Your task to perform on an android device: Go to location settings Image 0: 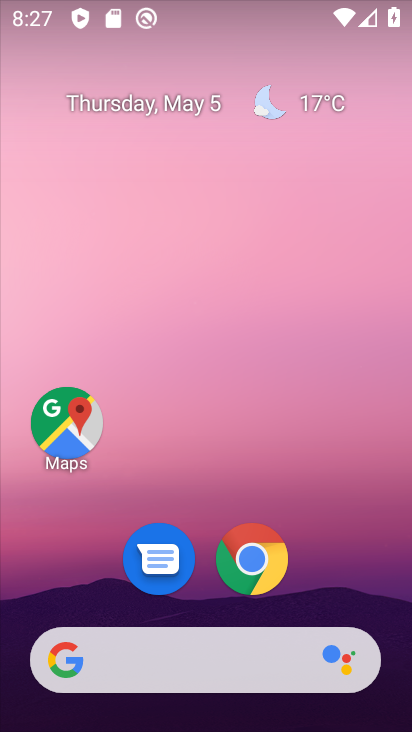
Step 0: click (270, 5)
Your task to perform on an android device: Go to location settings Image 1: 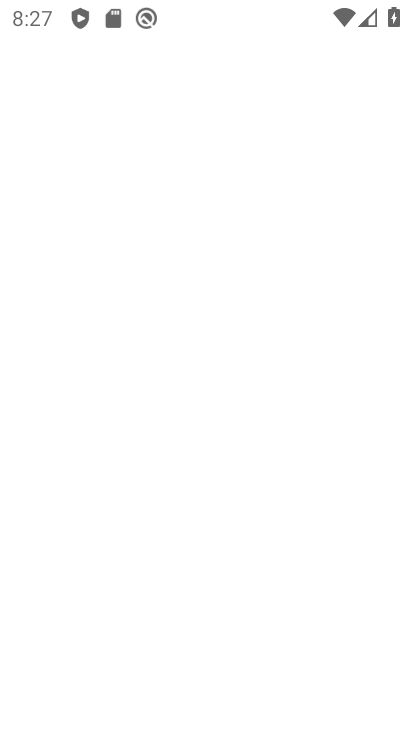
Step 1: press back button
Your task to perform on an android device: Go to location settings Image 2: 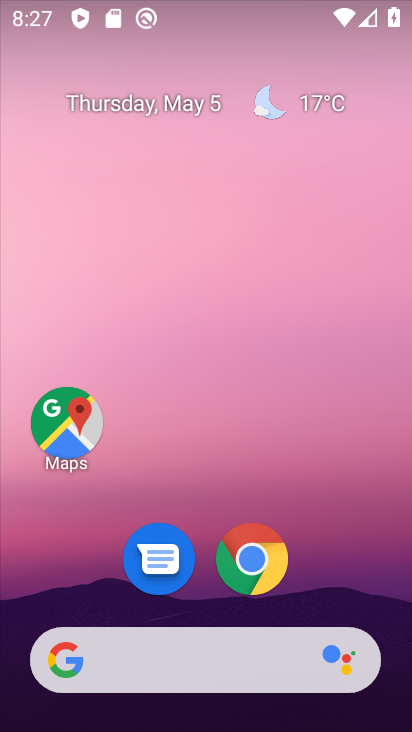
Step 2: drag from (201, 538) to (305, 35)
Your task to perform on an android device: Go to location settings Image 3: 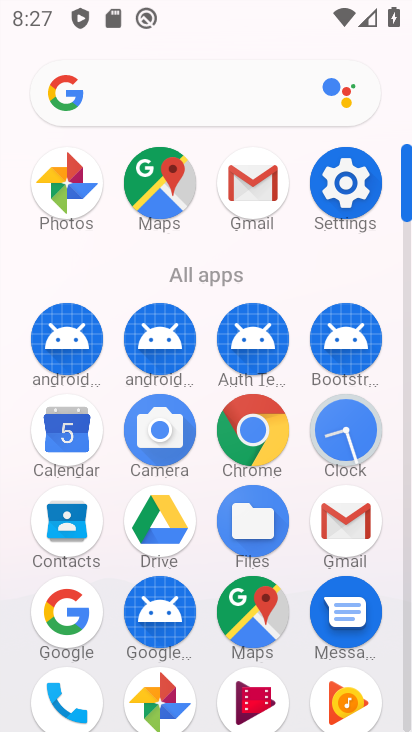
Step 3: click (347, 175)
Your task to perform on an android device: Go to location settings Image 4: 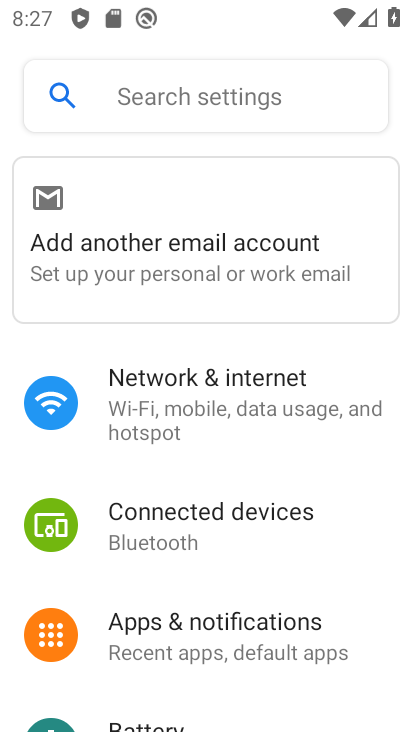
Step 4: drag from (211, 621) to (303, 98)
Your task to perform on an android device: Go to location settings Image 5: 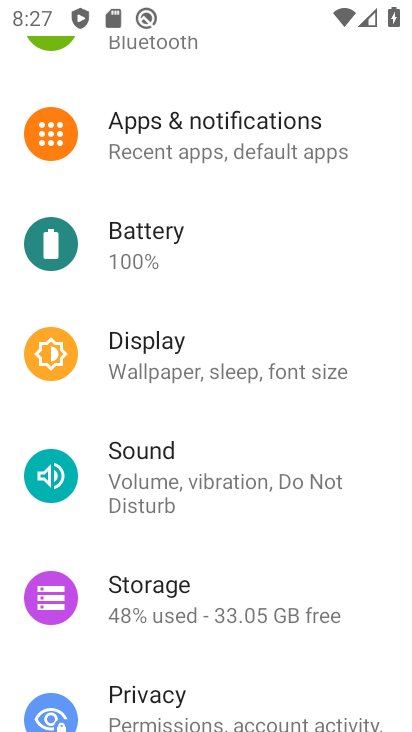
Step 5: drag from (220, 621) to (289, 164)
Your task to perform on an android device: Go to location settings Image 6: 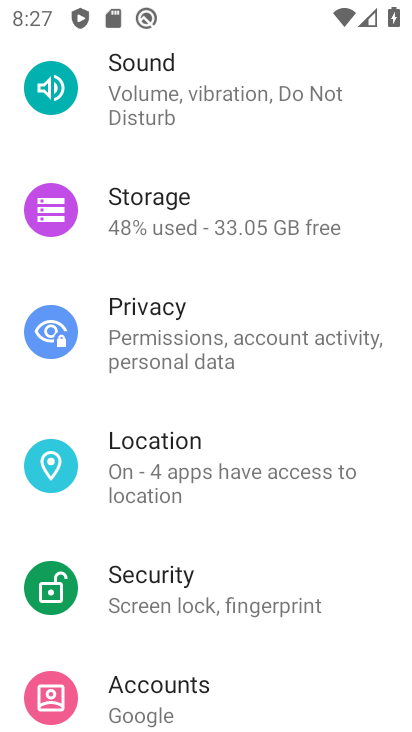
Step 6: click (177, 469)
Your task to perform on an android device: Go to location settings Image 7: 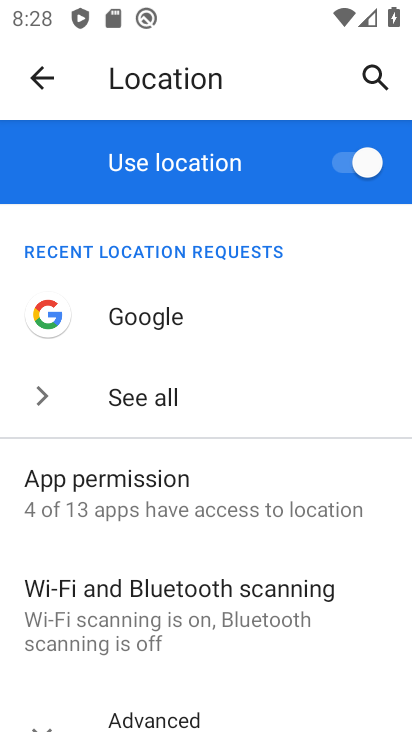
Step 7: task complete